Your task to perform on an android device: turn smart compose on in the gmail app Image 0: 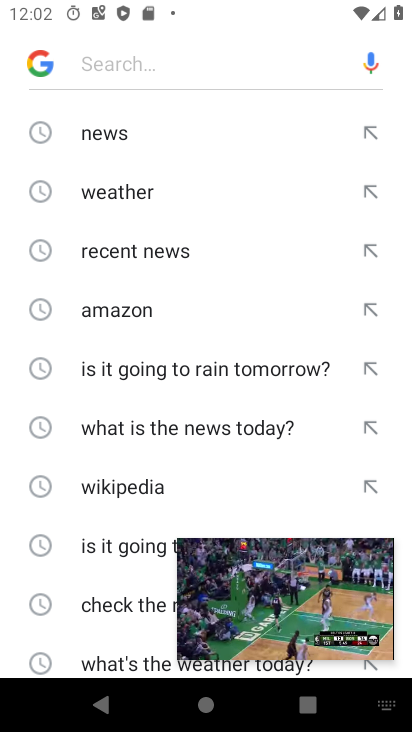
Step 0: press home button
Your task to perform on an android device: turn smart compose on in the gmail app Image 1: 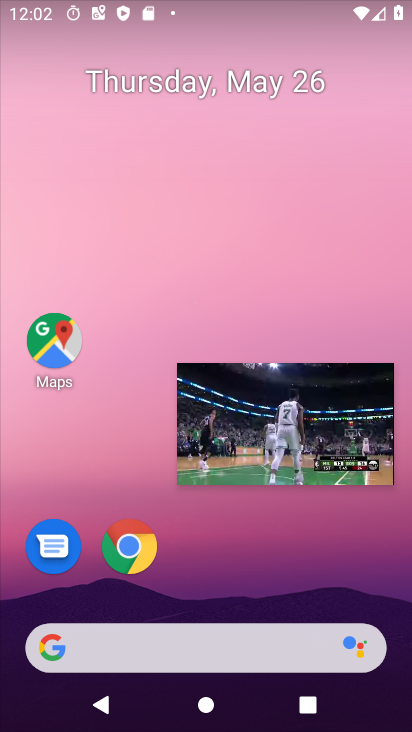
Step 1: drag from (196, 602) to (229, 12)
Your task to perform on an android device: turn smart compose on in the gmail app Image 2: 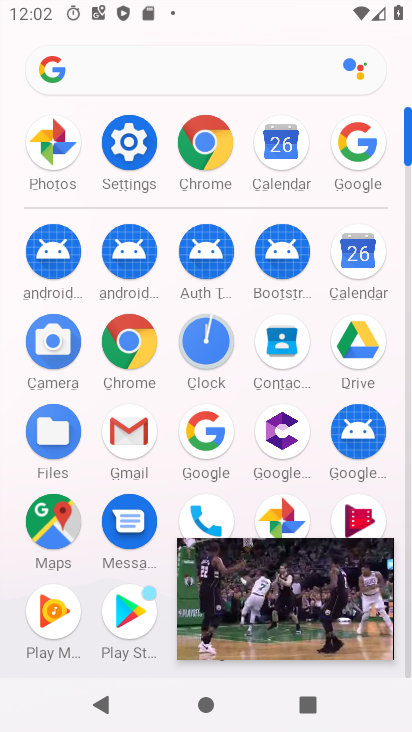
Step 2: click (131, 435)
Your task to perform on an android device: turn smart compose on in the gmail app Image 3: 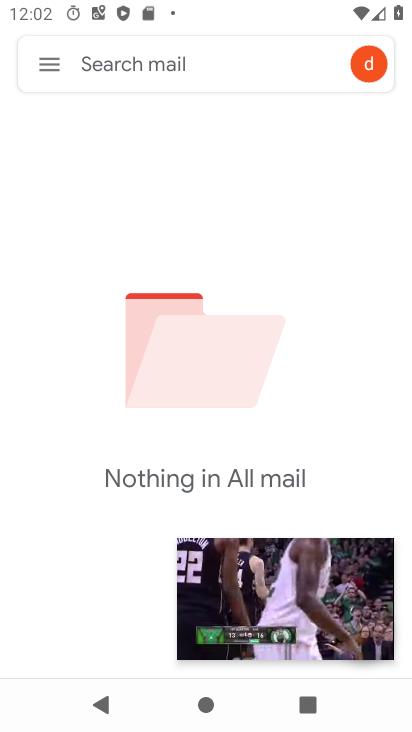
Step 3: click (53, 62)
Your task to perform on an android device: turn smart compose on in the gmail app Image 4: 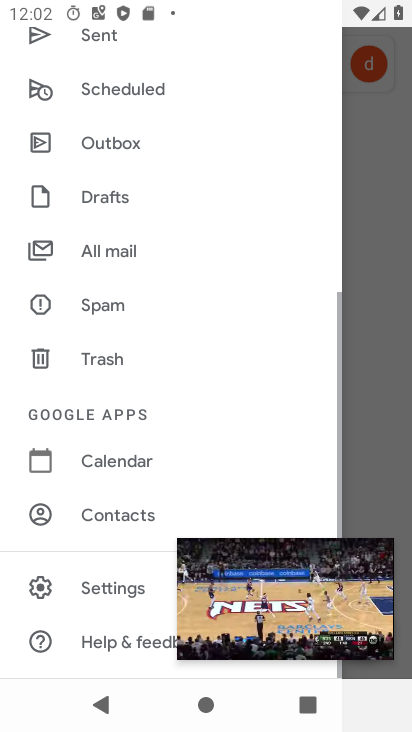
Step 4: click (125, 594)
Your task to perform on an android device: turn smart compose on in the gmail app Image 5: 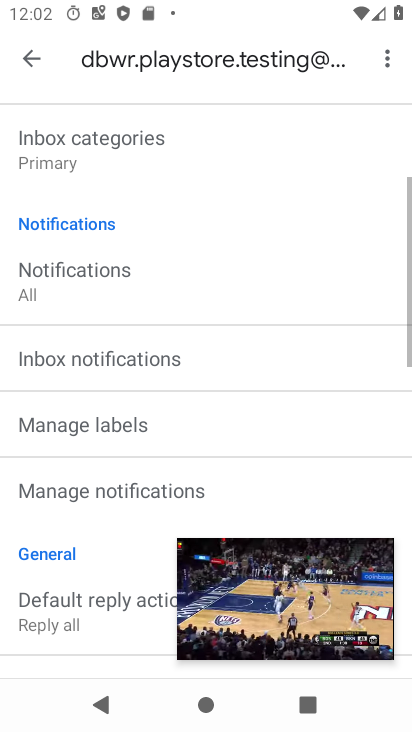
Step 5: task complete